Your task to perform on an android device: Go to Reddit.com Image 0: 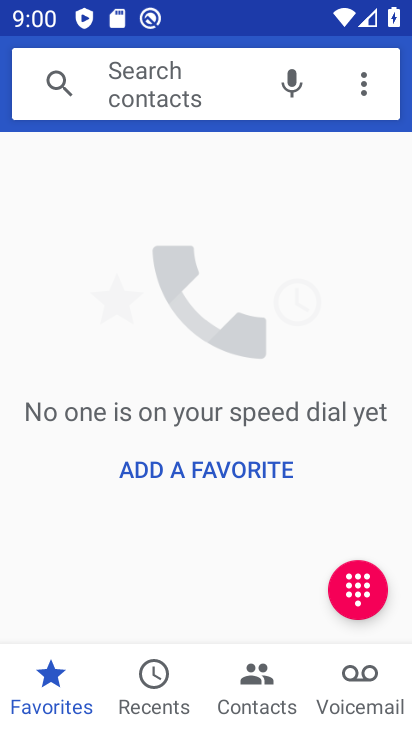
Step 0: press home button
Your task to perform on an android device: Go to Reddit.com Image 1: 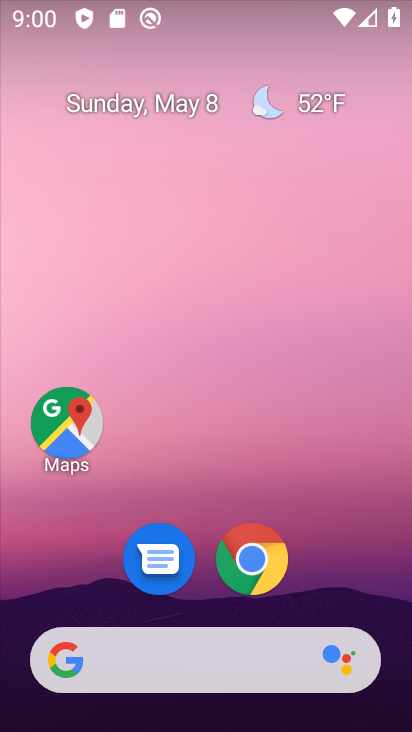
Step 1: click (239, 552)
Your task to perform on an android device: Go to Reddit.com Image 2: 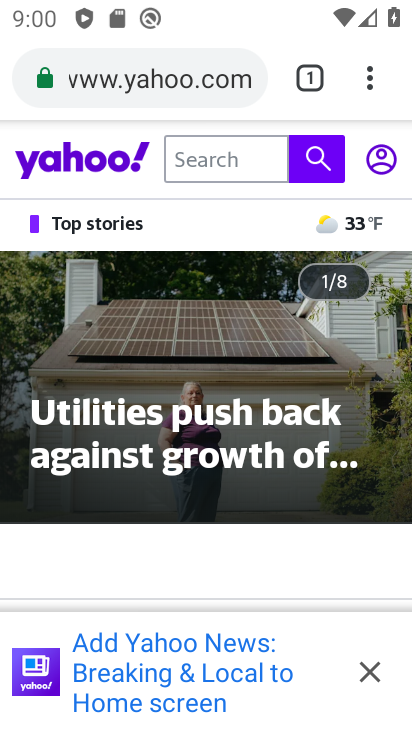
Step 2: click (225, 87)
Your task to perform on an android device: Go to Reddit.com Image 3: 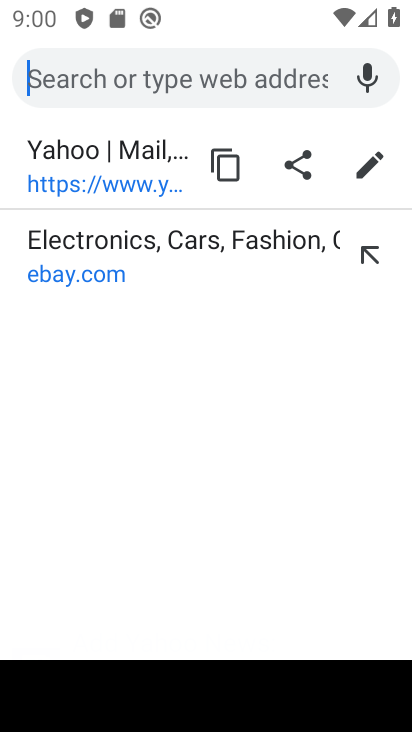
Step 3: type "reddit.com"
Your task to perform on an android device: Go to Reddit.com Image 4: 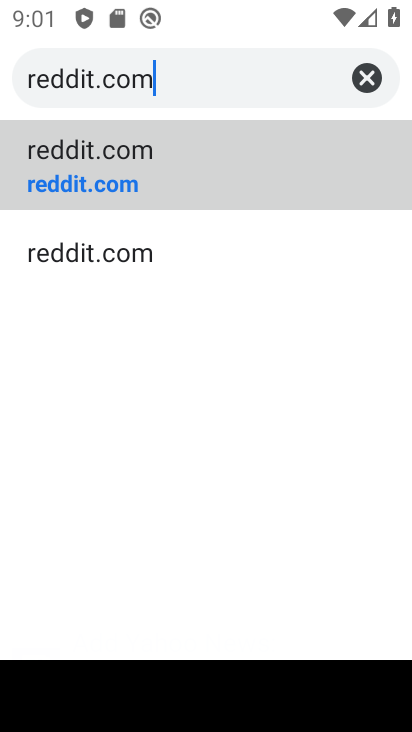
Step 4: click (228, 166)
Your task to perform on an android device: Go to Reddit.com Image 5: 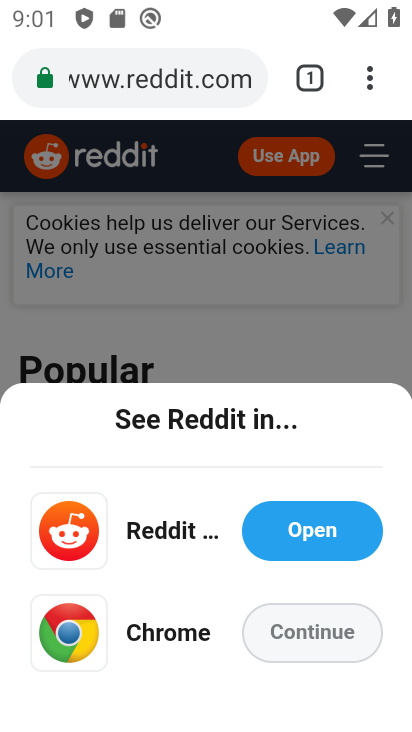
Step 5: click (282, 616)
Your task to perform on an android device: Go to Reddit.com Image 6: 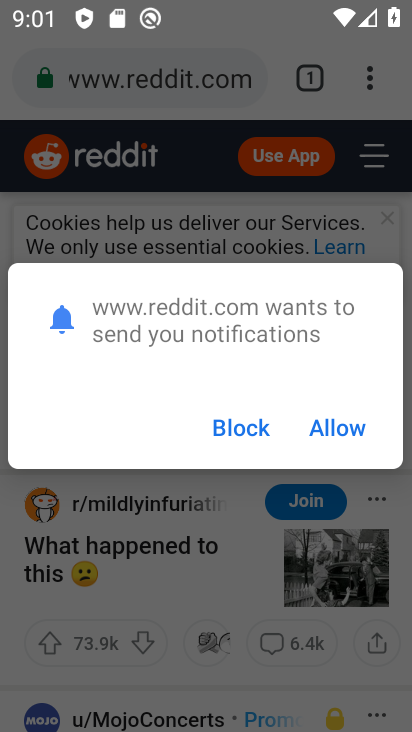
Step 6: click (246, 438)
Your task to perform on an android device: Go to Reddit.com Image 7: 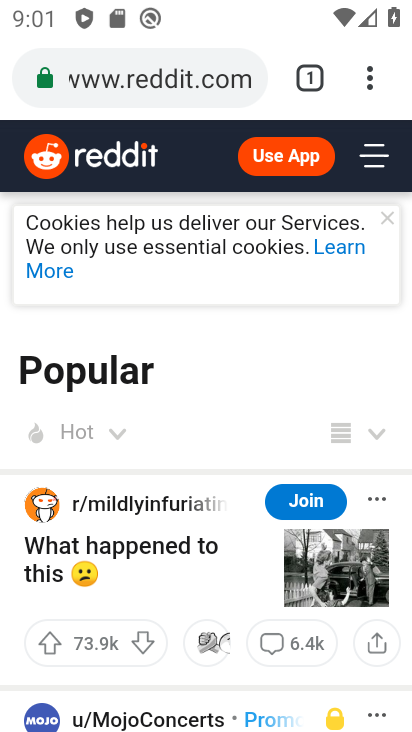
Step 7: task complete